Your task to perform on an android device: Search for pizza restaurants on Maps Image 0: 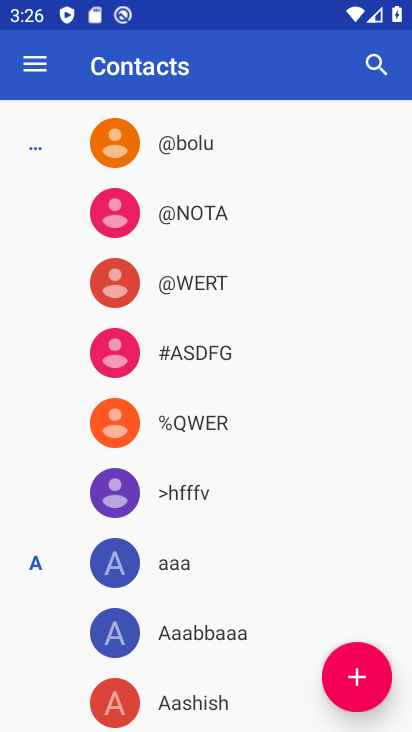
Step 0: press home button
Your task to perform on an android device: Search for pizza restaurants on Maps Image 1: 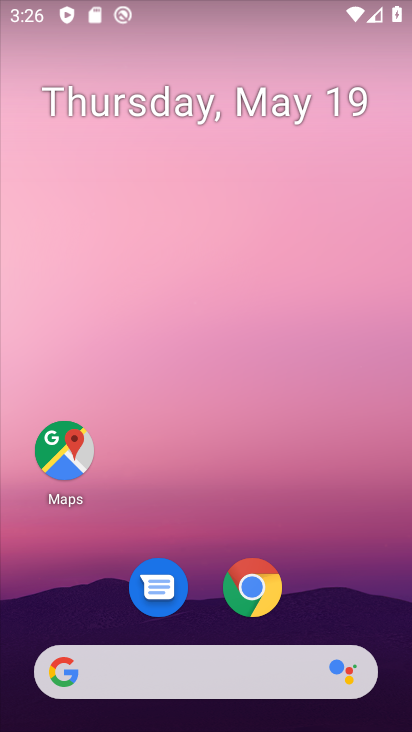
Step 1: drag from (340, 612) to (342, 224)
Your task to perform on an android device: Search for pizza restaurants on Maps Image 2: 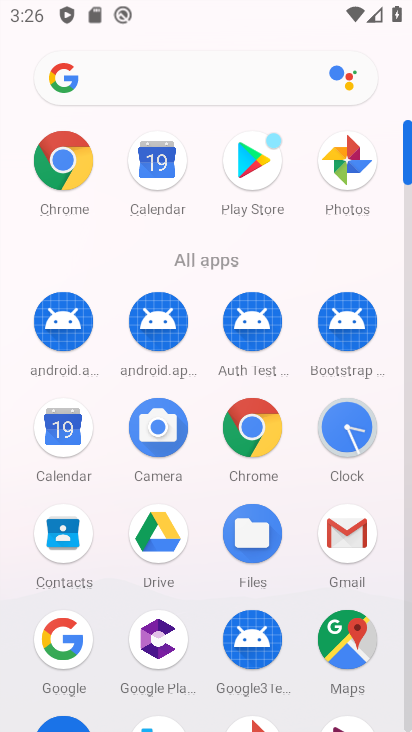
Step 2: drag from (394, 626) to (389, 291)
Your task to perform on an android device: Search for pizza restaurants on Maps Image 3: 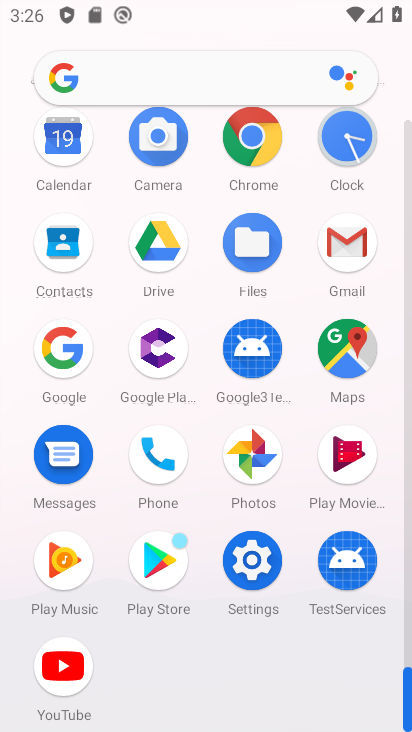
Step 3: click (358, 378)
Your task to perform on an android device: Search for pizza restaurants on Maps Image 4: 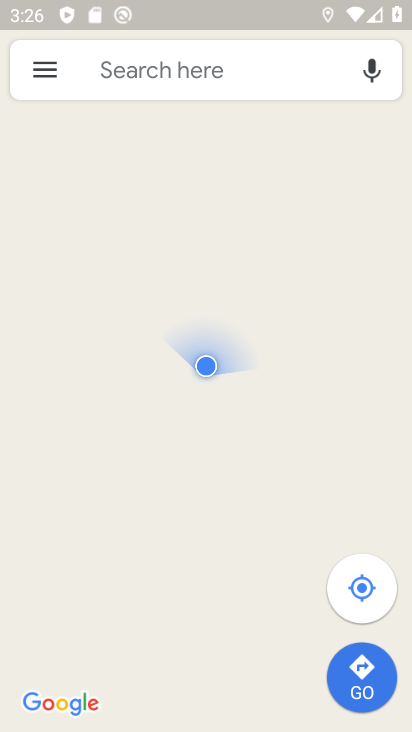
Step 4: click (302, 75)
Your task to perform on an android device: Search for pizza restaurants on Maps Image 5: 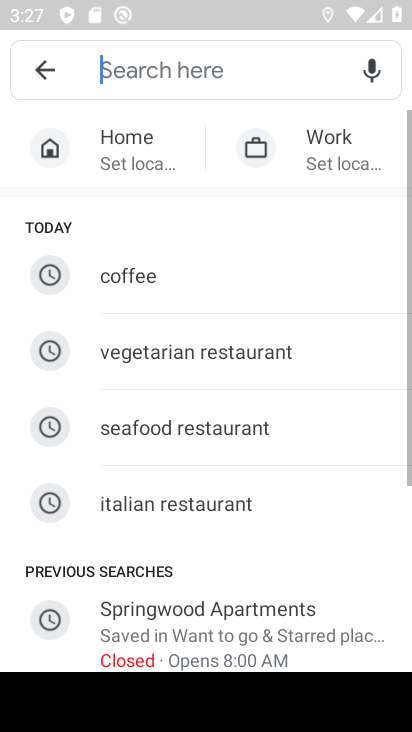
Step 5: type "pizzaa restaurants"
Your task to perform on an android device: Search for pizza restaurants on Maps Image 6: 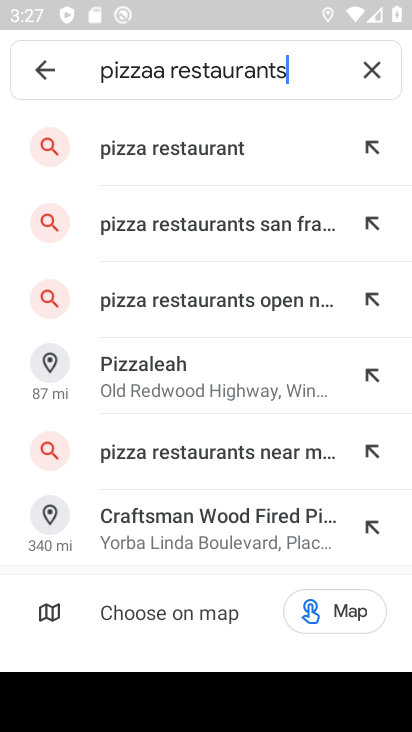
Step 6: click (255, 157)
Your task to perform on an android device: Search for pizza restaurants on Maps Image 7: 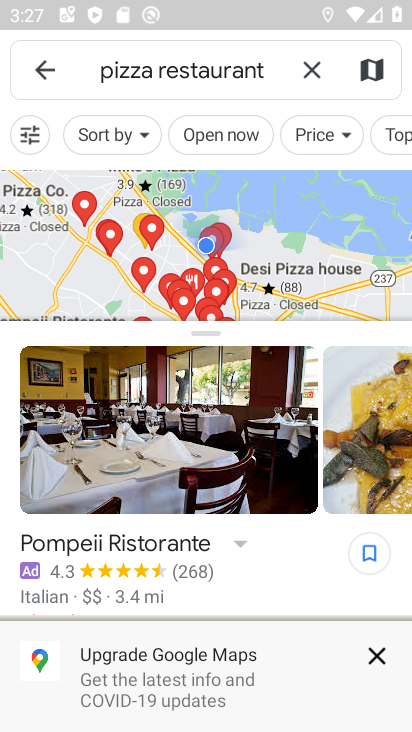
Step 7: task complete